Your task to perform on an android device: change timer sound Image 0: 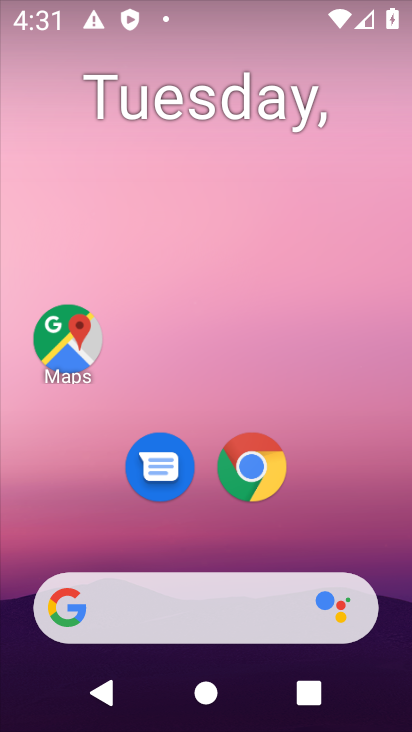
Step 0: drag from (161, 575) to (134, 194)
Your task to perform on an android device: change timer sound Image 1: 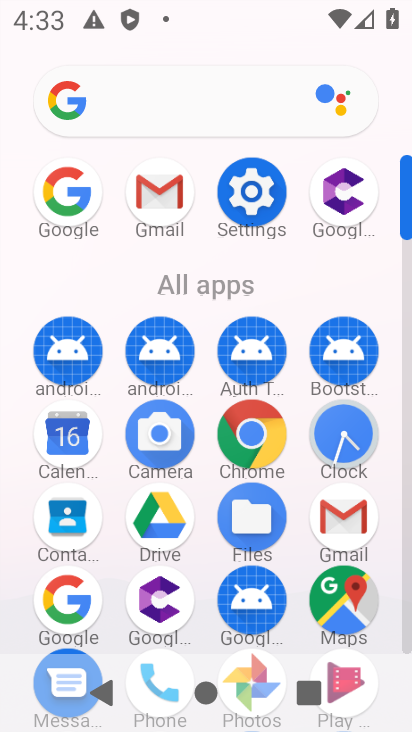
Step 1: click (370, 435)
Your task to perform on an android device: change timer sound Image 2: 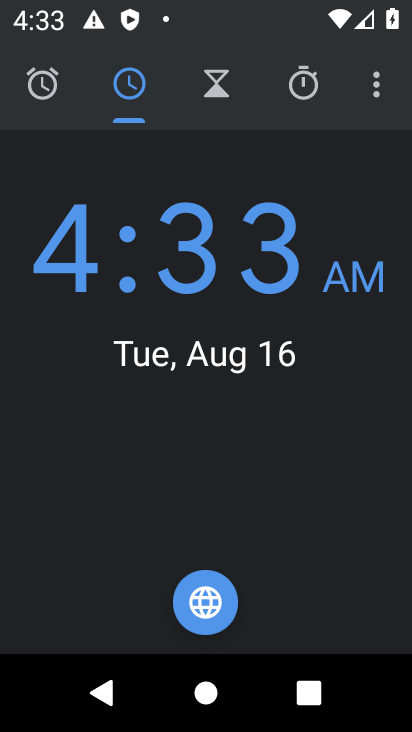
Step 2: click (374, 103)
Your task to perform on an android device: change timer sound Image 3: 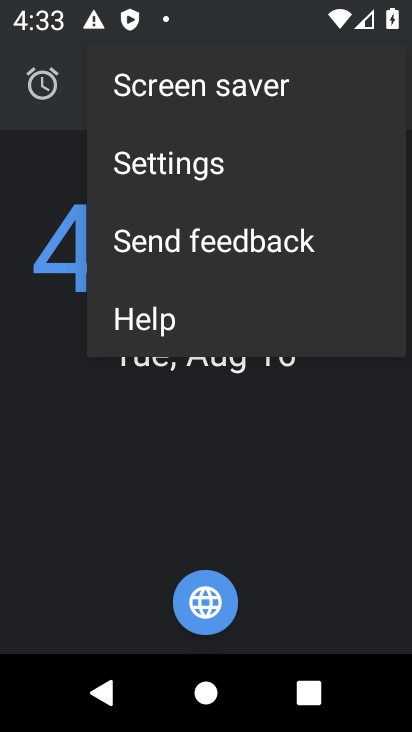
Step 3: click (184, 168)
Your task to perform on an android device: change timer sound Image 4: 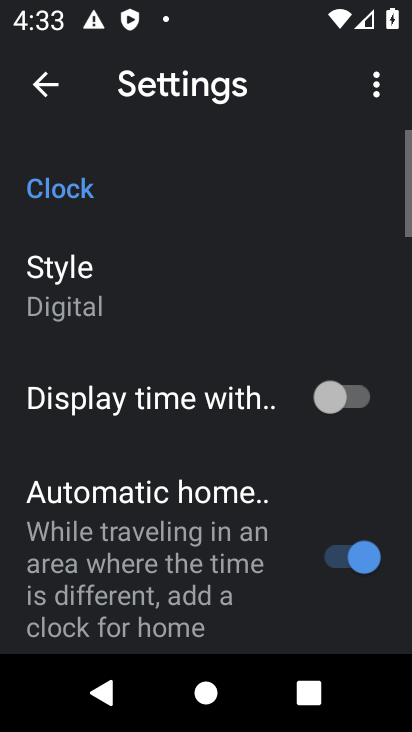
Step 4: drag from (214, 549) to (186, 234)
Your task to perform on an android device: change timer sound Image 5: 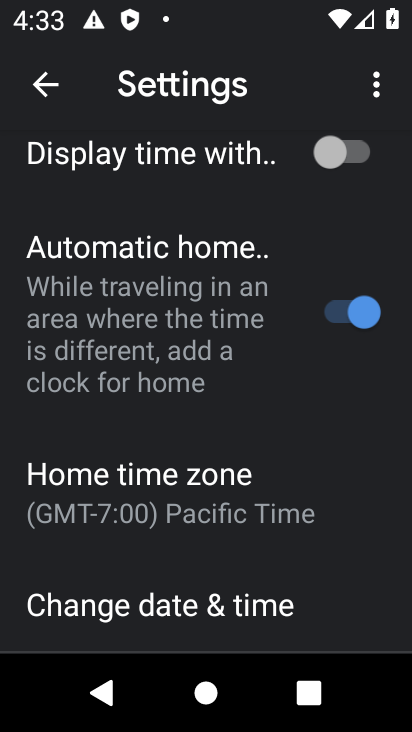
Step 5: drag from (187, 562) to (188, 223)
Your task to perform on an android device: change timer sound Image 6: 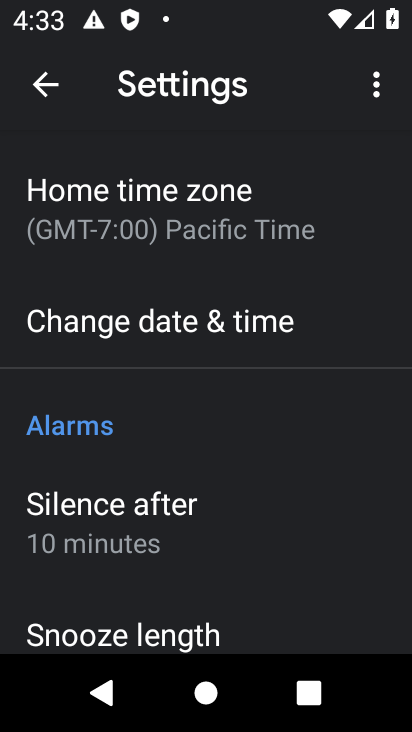
Step 6: drag from (197, 579) to (195, 341)
Your task to perform on an android device: change timer sound Image 7: 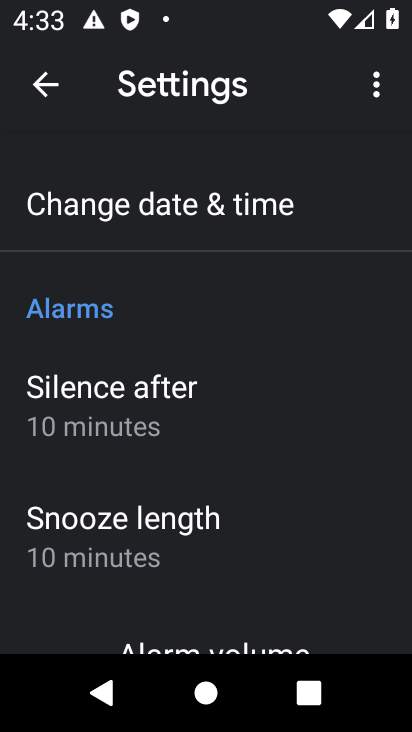
Step 7: drag from (229, 615) to (286, 295)
Your task to perform on an android device: change timer sound Image 8: 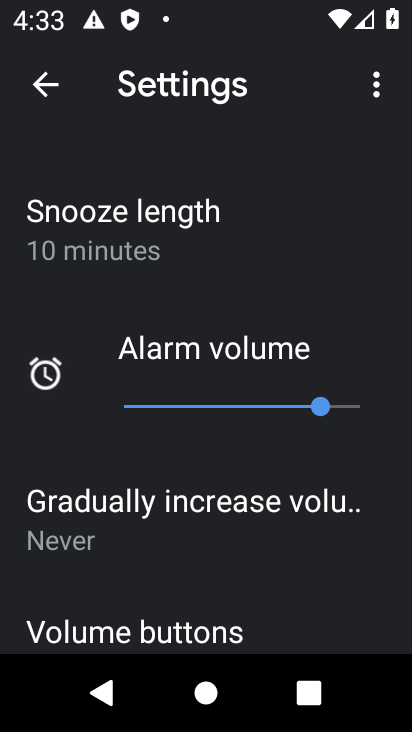
Step 8: drag from (209, 629) to (180, 236)
Your task to perform on an android device: change timer sound Image 9: 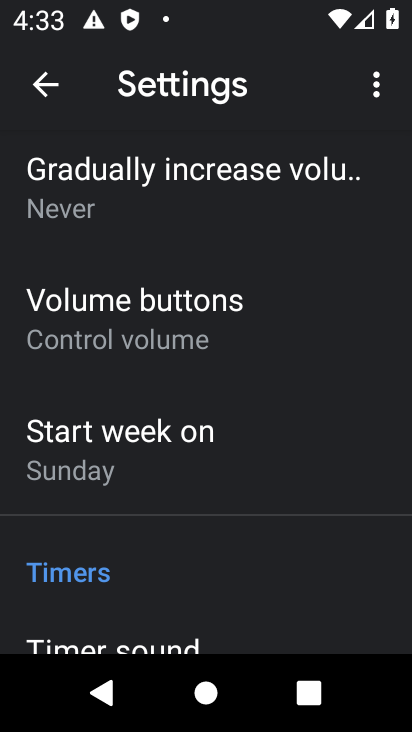
Step 9: drag from (266, 500) to (339, 243)
Your task to perform on an android device: change timer sound Image 10: 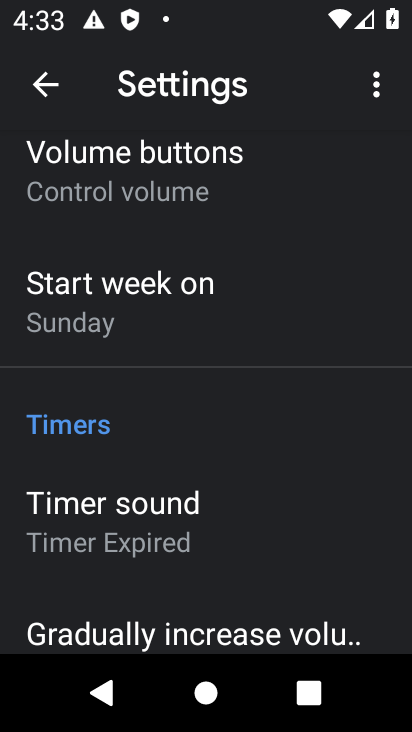
Step 10: click (156, 538)
Your task to perform on an android device: change timer sound Image 11: 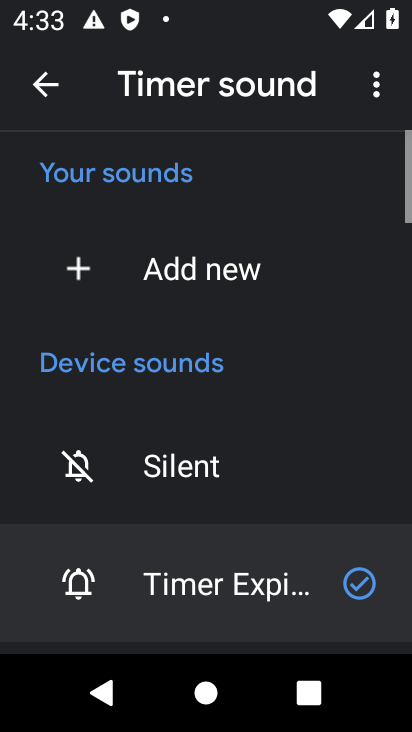
Step 11: drag from (145, 517) to (187, 161)
Your task to perform on an android device: change timer sound Image 12: 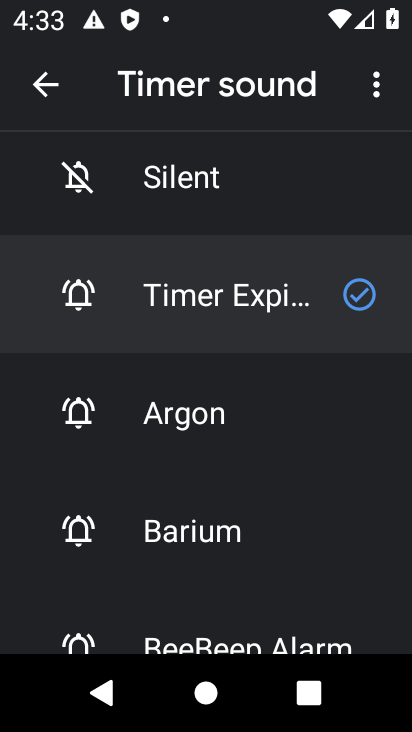
Step 12: click (194, 543)
Your task to perform on an android device: change timer sound Image 13: 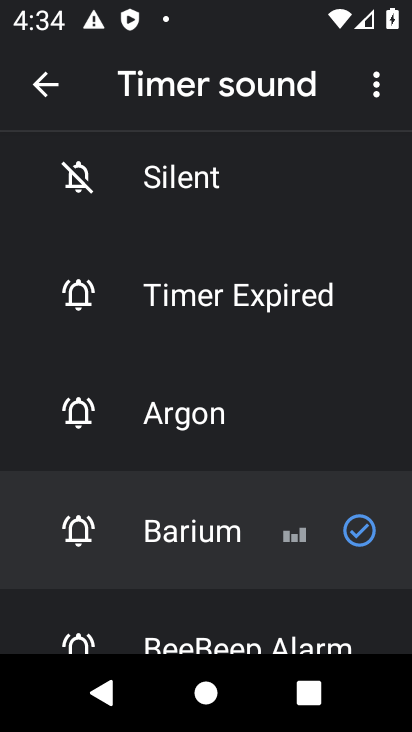
Step 13: task complete